Your task to perform on an android device: turn on location history Image 0: 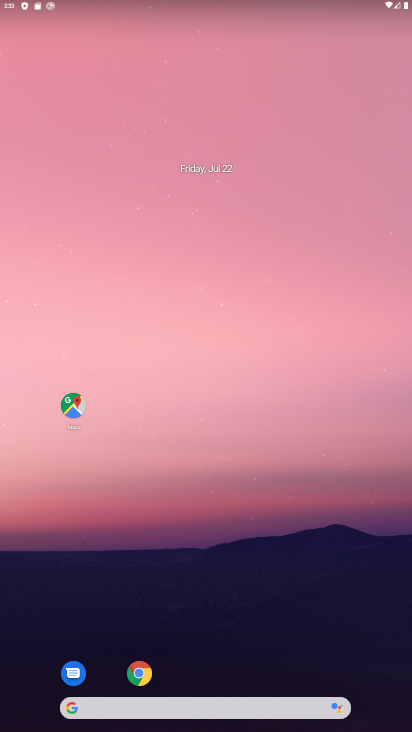
Step 0: drag from (204, 627) to (129, 19)
Your task to perform on an android device: turn on location history Image 1: 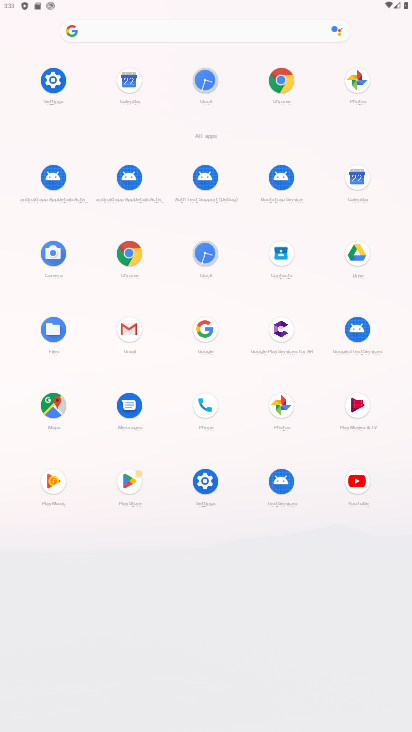
Step 1: click (53, 81)
Your task to perform on an android device: turn on location history Image 2: 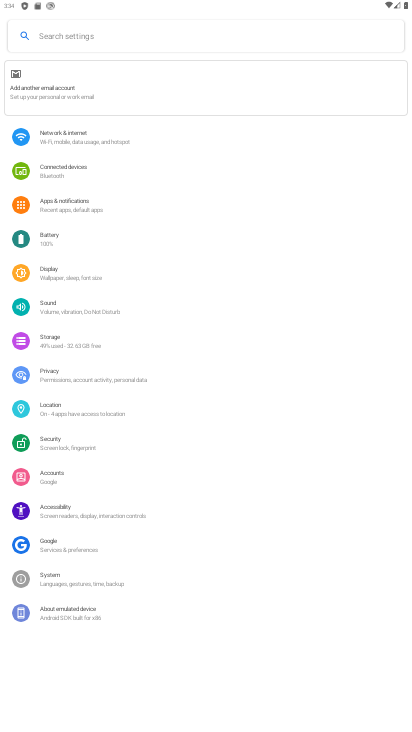
Step 2: click (54, 418)
Your task to perform on an android device: turn on location history Image 3: 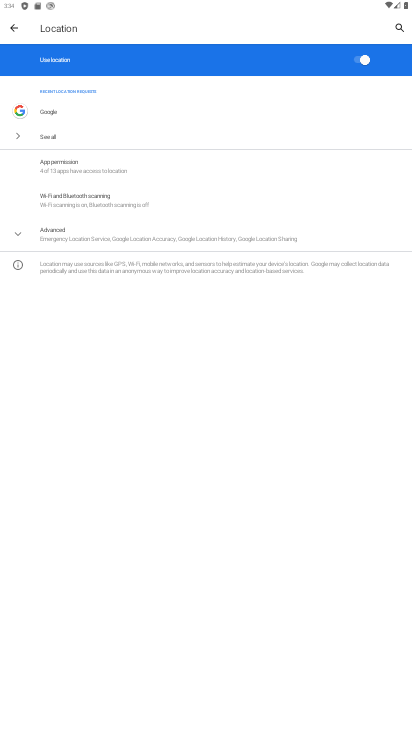
Step 3: click (87, 231)
Your task to perform on an android device: turn on location history Image 4: 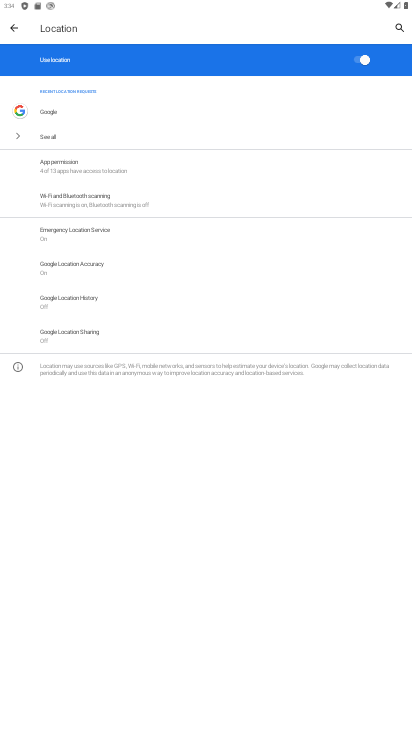
Step 4: click (87, 300)
Your task to perform on an android device: turn on location history Image 5: 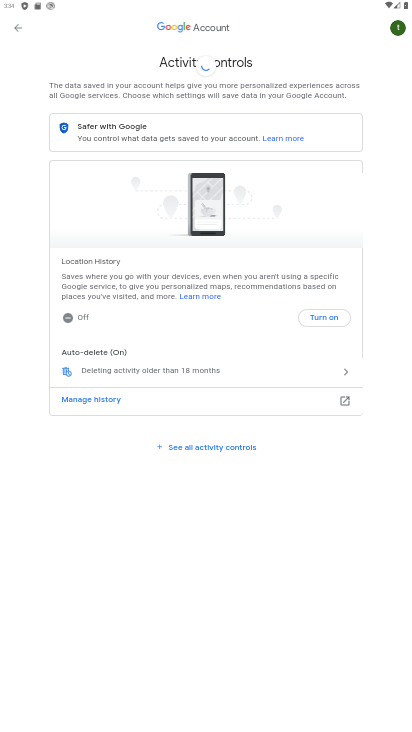
Step 5: click (310, 320)
Your task to perform on an android device: turn on location history Image 6: 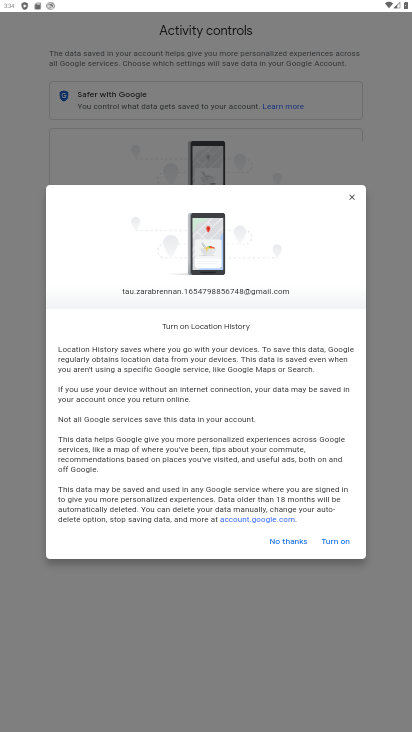
Step 6: click (331, 542)
Your task to perform on an android device: turn on location history Image 7: 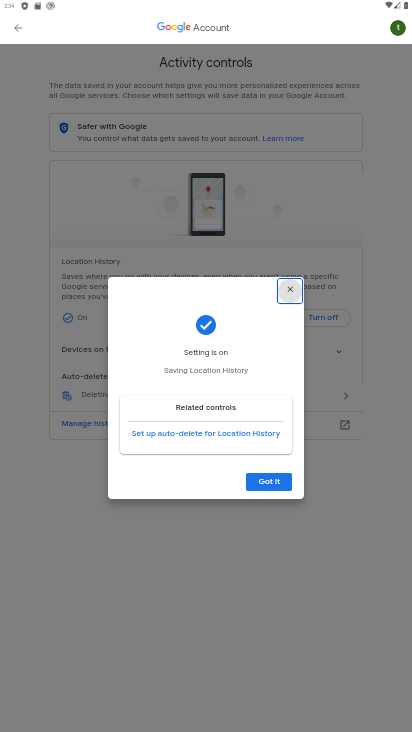
Step 7: click (261, 481)
Your task to perform on an android device: turn on location history Image 8: 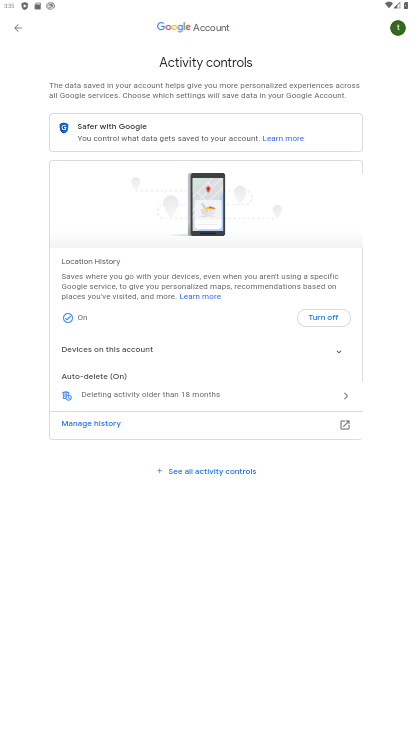
Step 8: task complete